Your task to perform on an android device: turn vacation reply on in the gmail app Image 0: 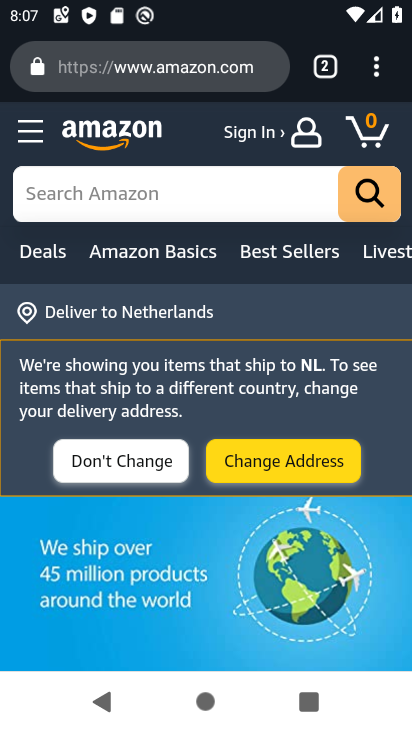
Step 0: press home button
Your task to perform on an android device: turn vacation reply on in the gmail app Image 1: 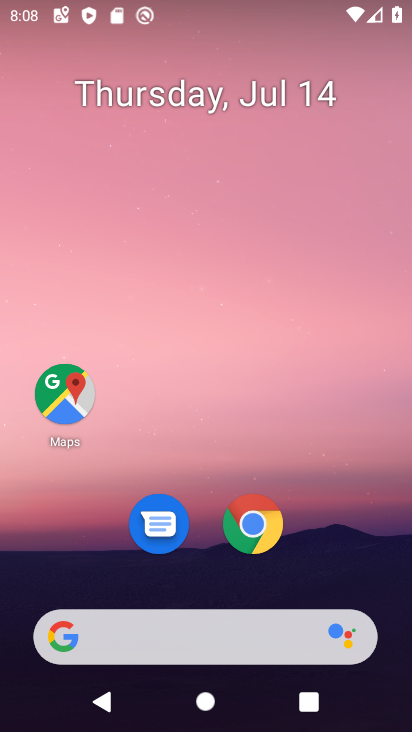
Step 1: drag from (349, 529) to (372, 16)
Your task to perform on an android device: turn vacation reply on in the gmail app Image 2: 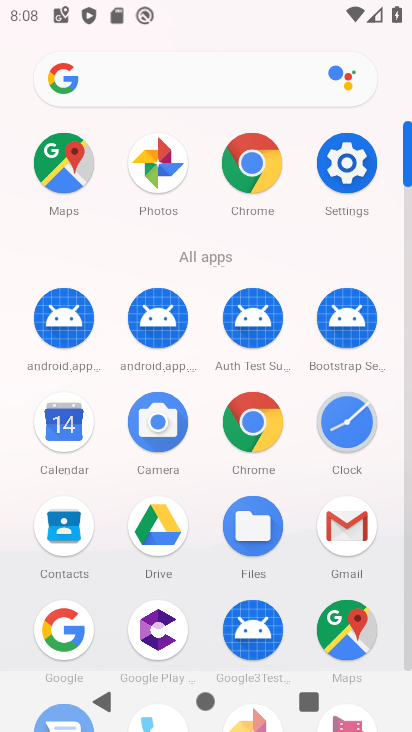
Step 2: click (334, 524)
Your task to perform on an android device: turn vacation reply on in the gmail app Image 3: 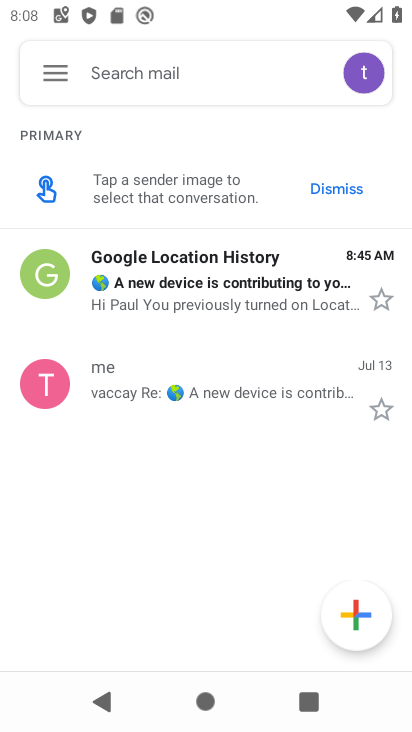
Step 3: click (54, 80)
Your task to perform on an android device: turn vacation reply on in the gmail app Image 4: 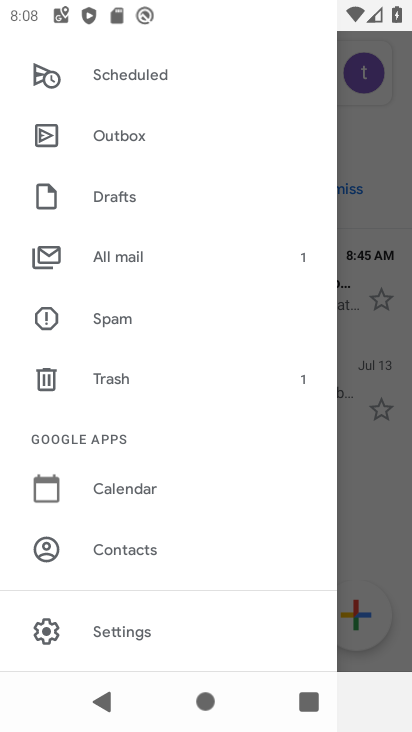
Step 4: drag from (196, 528) to (223, 296)
Your task to perform on an android device: turn vacation reply on in the gmail app Image 5: 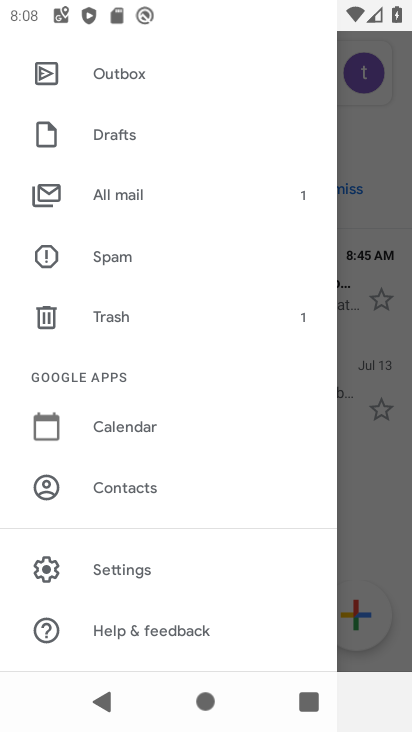
Step 5: click (136, 571)
Your task to perform on an android device: turn vacation reply on in the gmail app Image 6: 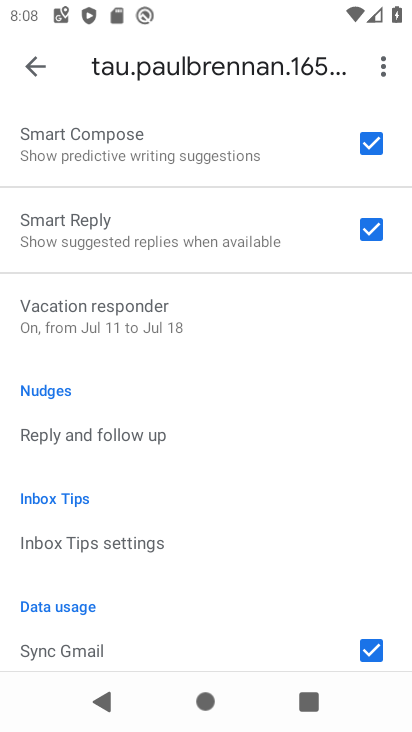
Step 6: drag from (236, 461) to (244, 345)
Your task to perform on an android device: turn vacation reply on in the gmail app Image 7: 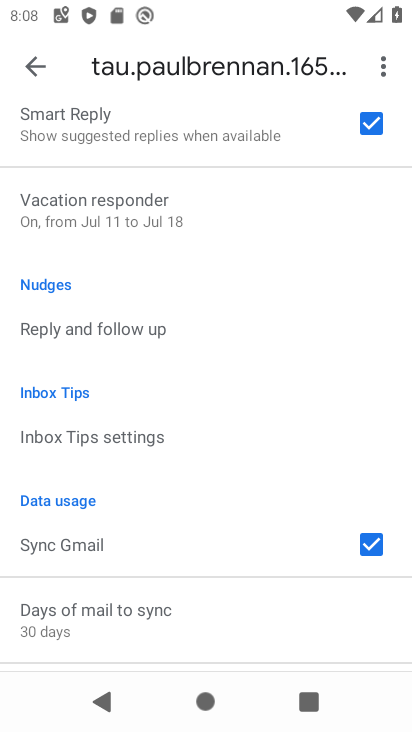
Step 7: click (183, 210)
Your task to perform on an android device: turn vacation reply on in the gmail app Image 8: 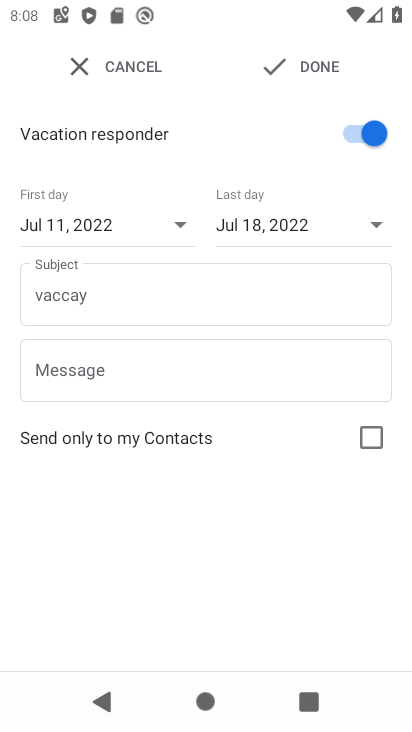
Step 8: task complete